Your task to perform on an android device: find which apps use the phone's location Image 0: 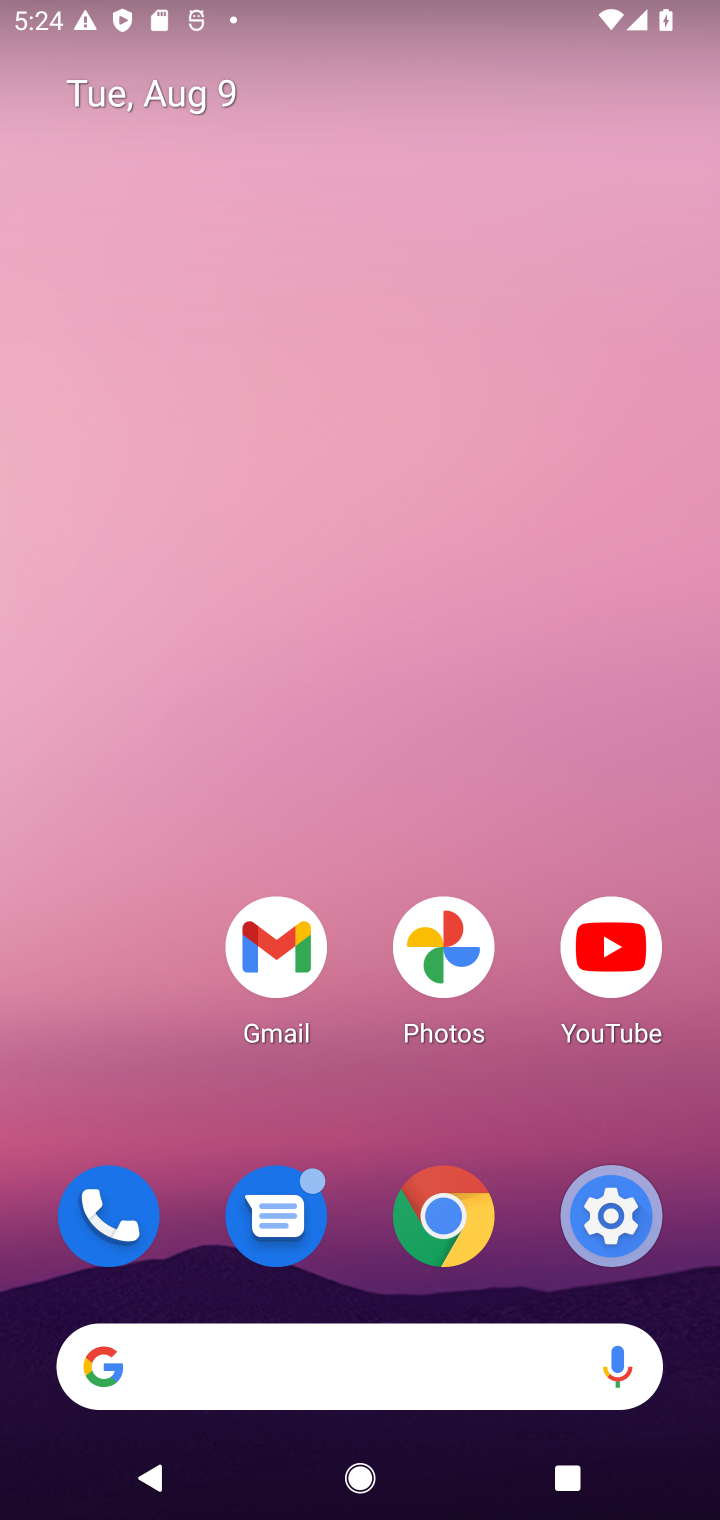
Step 0: drag from (359, 1331) to (434, 230)
Your task to perform on an android device: find which apps use the phone's location Image 1: 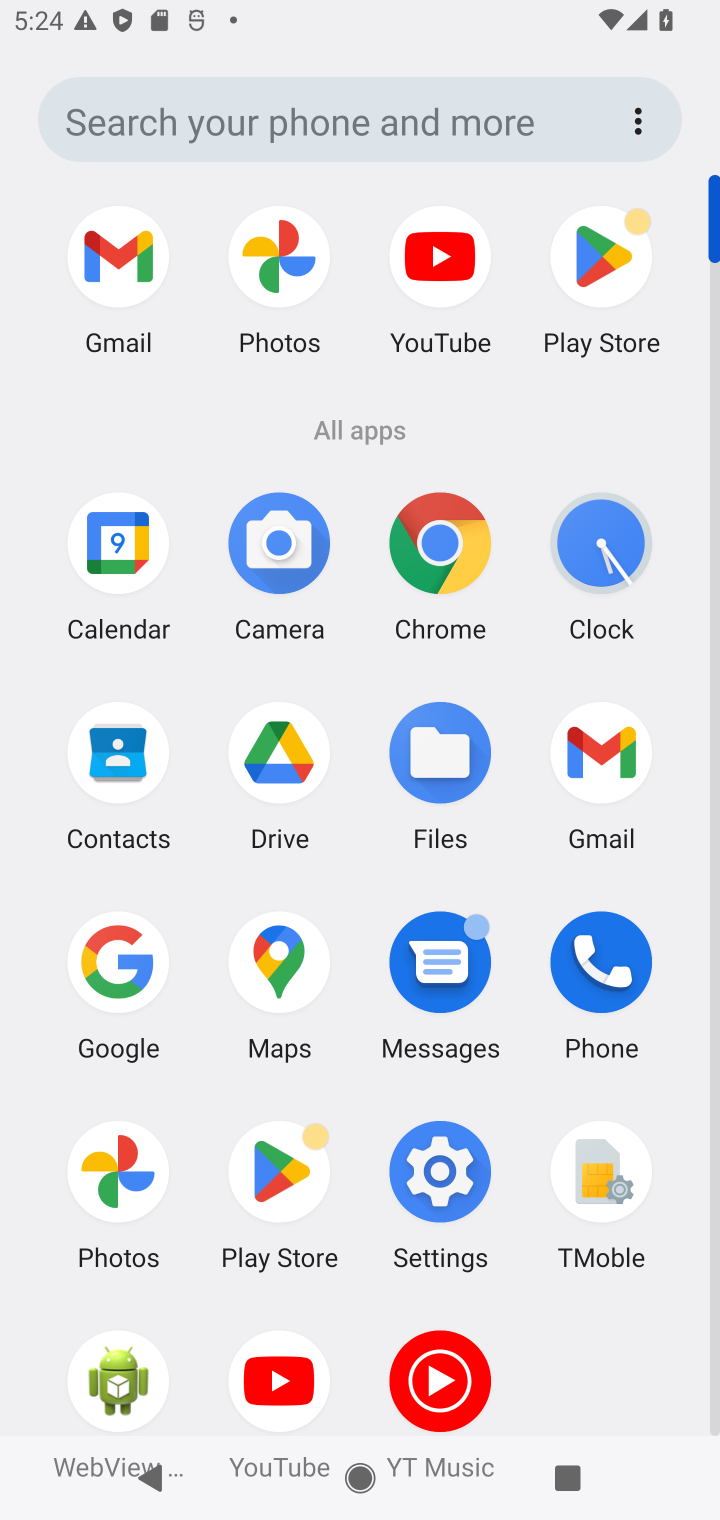
Step 1: click (456, 1175)
Your task to perform on an android device: find which apps use the phone's location Image 2: 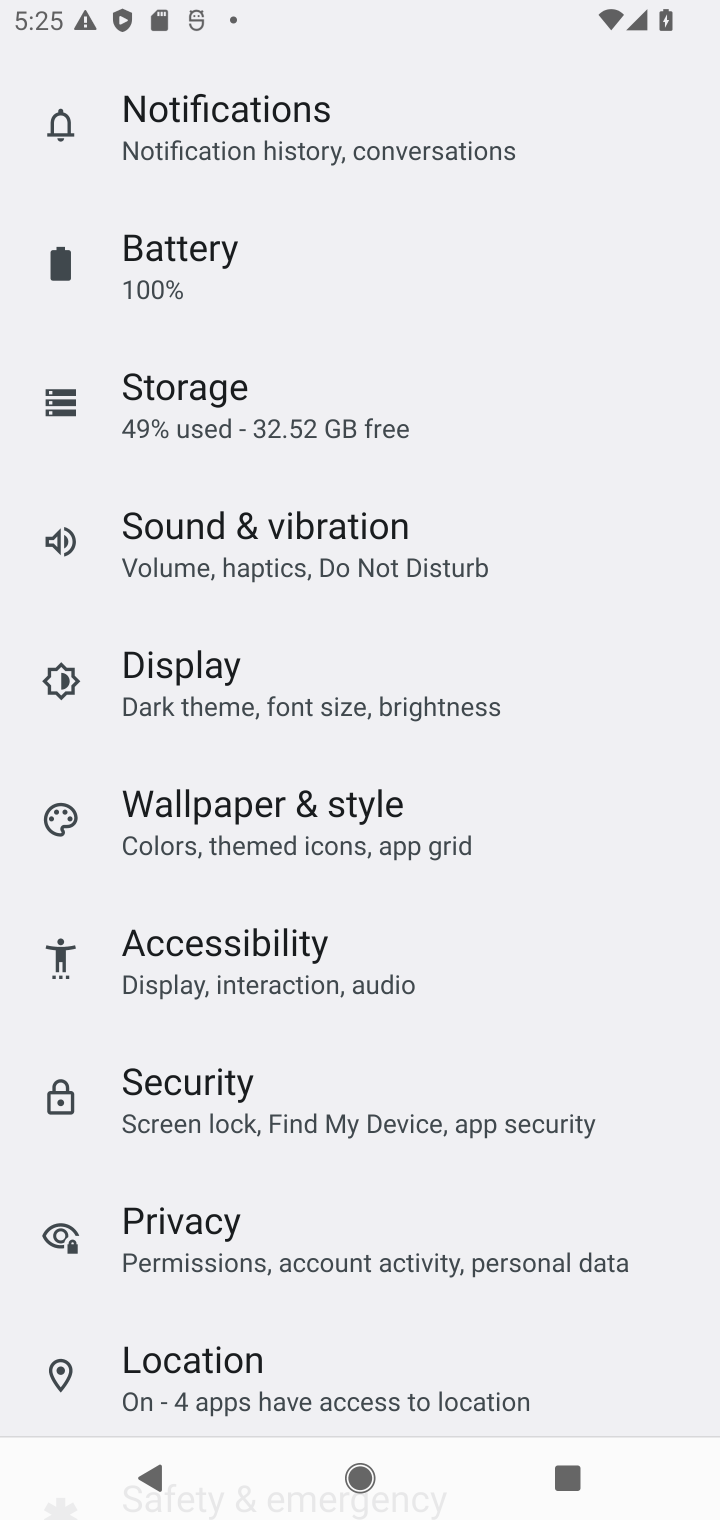
Step 2: drag from (196, 1372) to (289, 1372)
Your task to perform on an android device: find which apps use the phone's location Image 3: 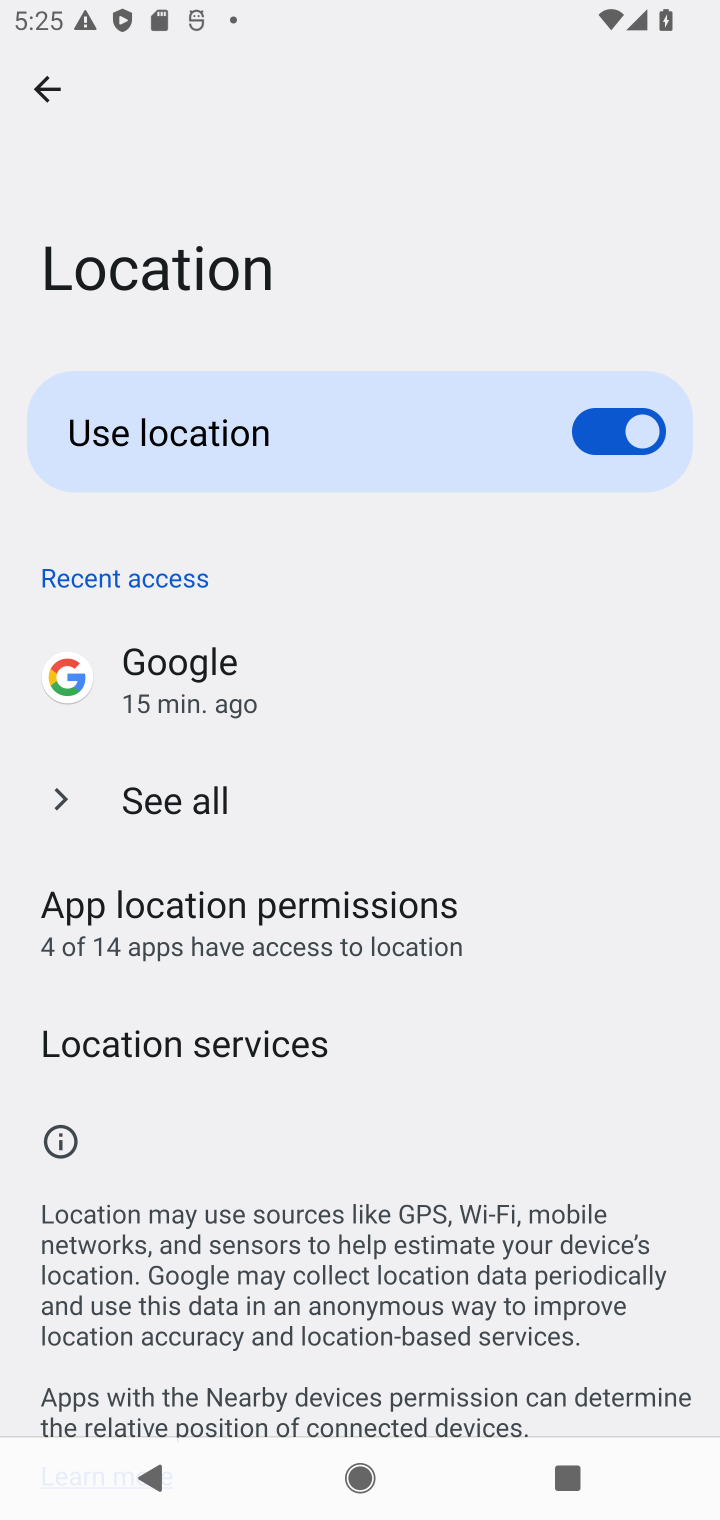
Step 3: click (233, 923)
Your task to perform on an android device: find which apps use the phone's location Image 4: 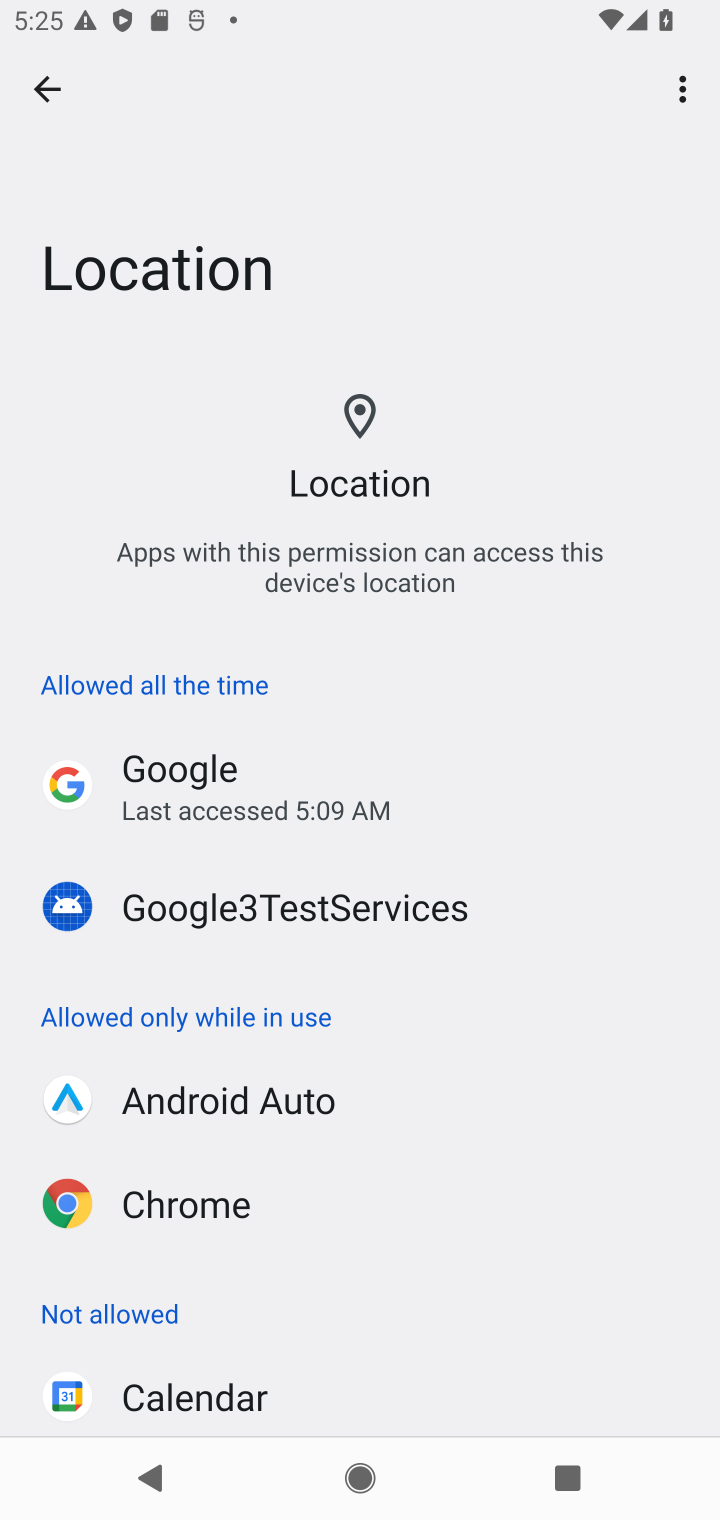
Step 4: task complete